Your task to perform on an android device: Open location settings Image 0: 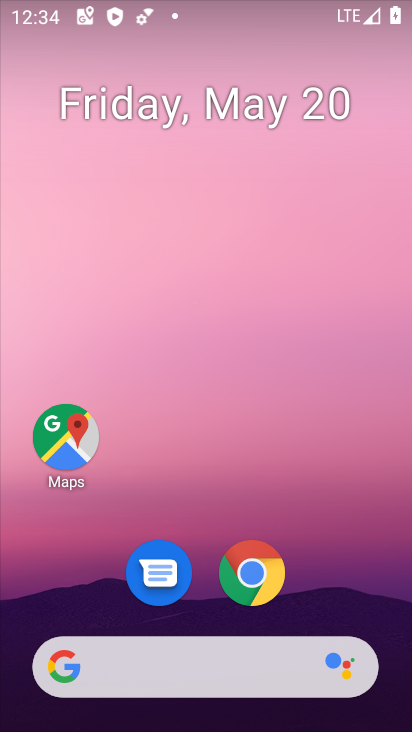
Step 0: drag from (210, 598) to (314, 76)
Your task to perform on an android device: Open location settings Image 1: 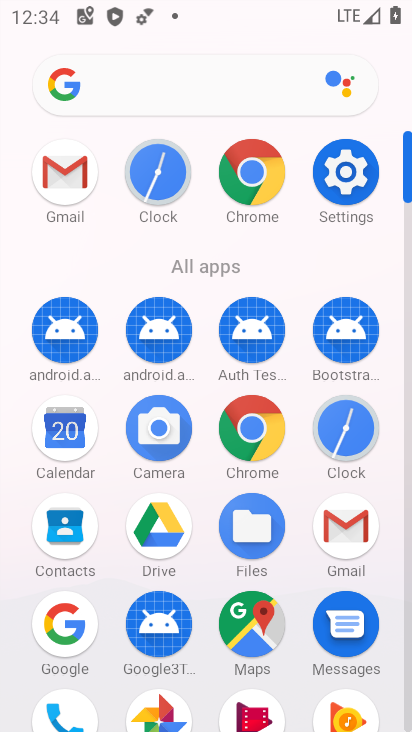
Step 1: click (339, 195)
Your task to perform on an android device: Open location settings Image 2: 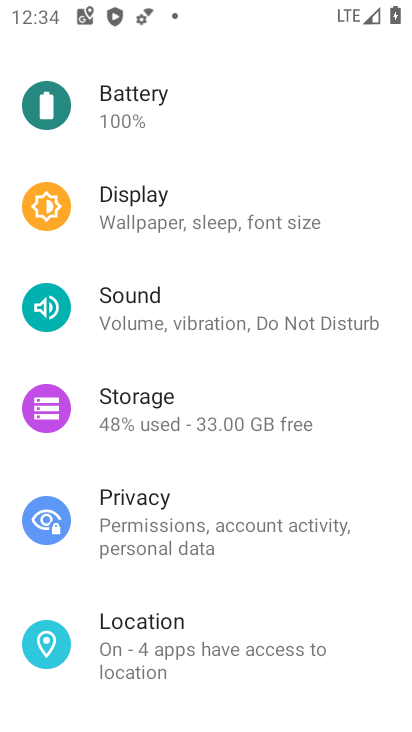
Step 2: click (154, 619)
Your task to perform on an android device: Open location settings Image 3: 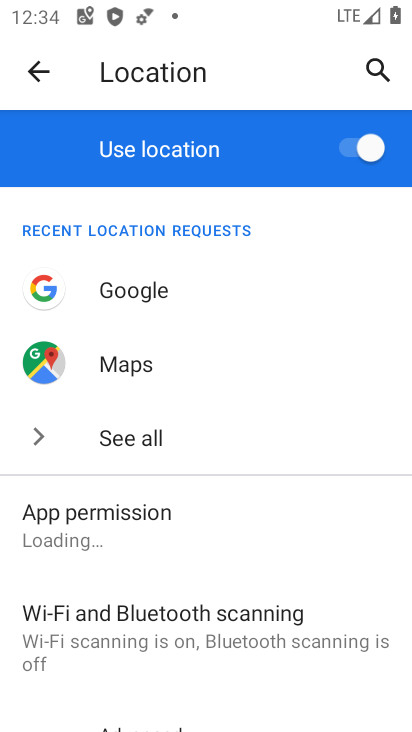
Step 3: task complete